Your task to perform on an android device: Go to calendar. Show me events next week Image 0: 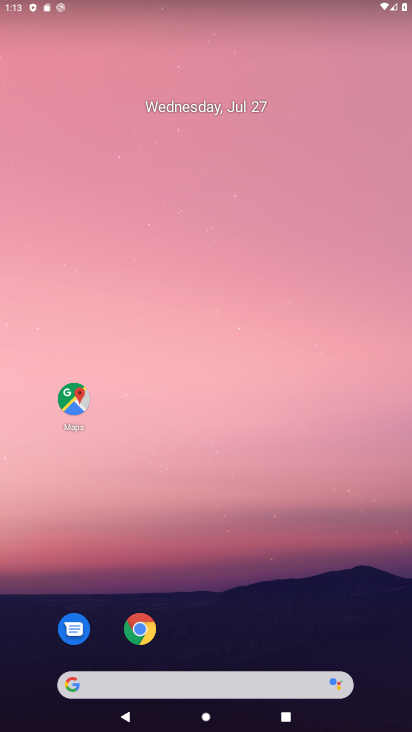
Step 0: press home button
Your task to perform on an android device: Go to calendar. Show me events next week Image 1: 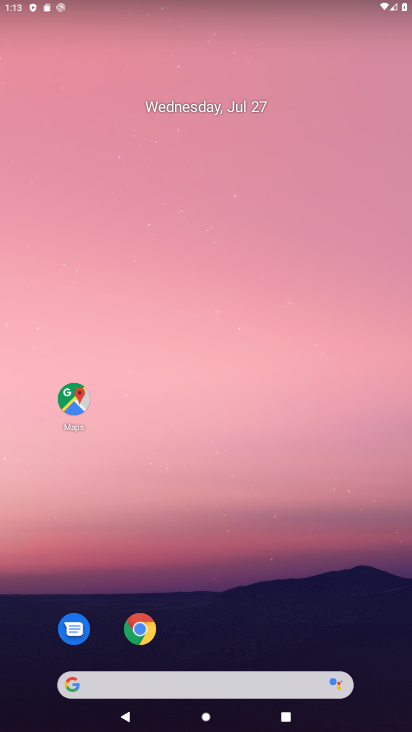
Step 1: drag from (255, 650) to (259, 10)
Your task to perform on an android device: Go to calendar. Show me events next week Image 2: 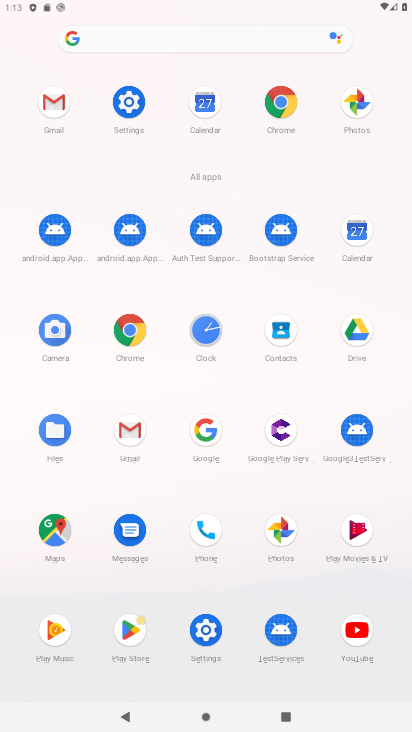
Step 2: click (356, 238)
Your task to perform on an android device: Go to calendar. Show me events next week Image 3: 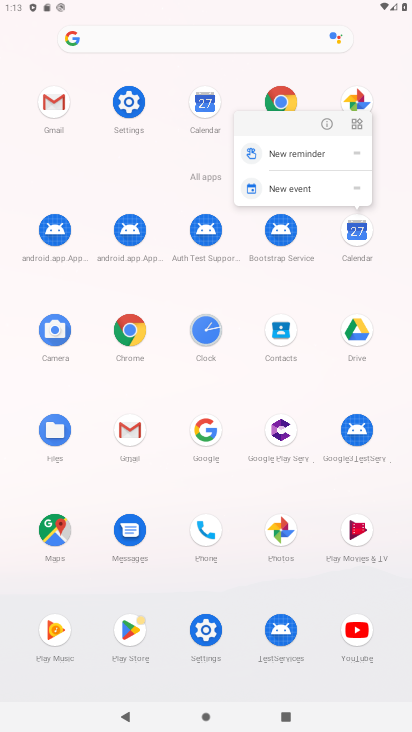
Step 3: click (356, 238)
Your task to perform on an android device: Go to calendar. Show me events next week Image 4: 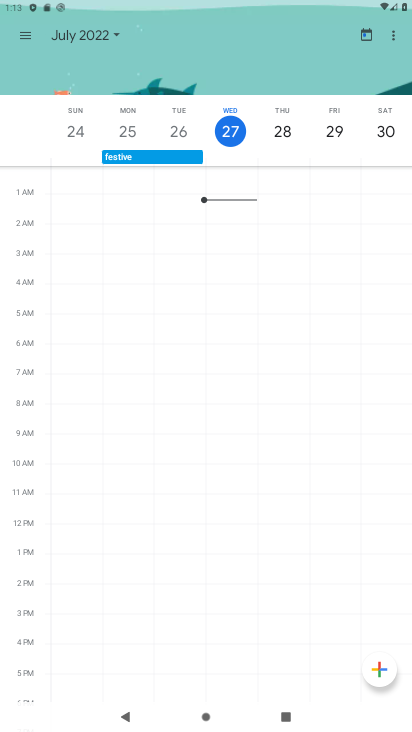
Step 4: click (36, 33)
Your task to perform on an android device: Go to calendar. Show me events next week Image 5: 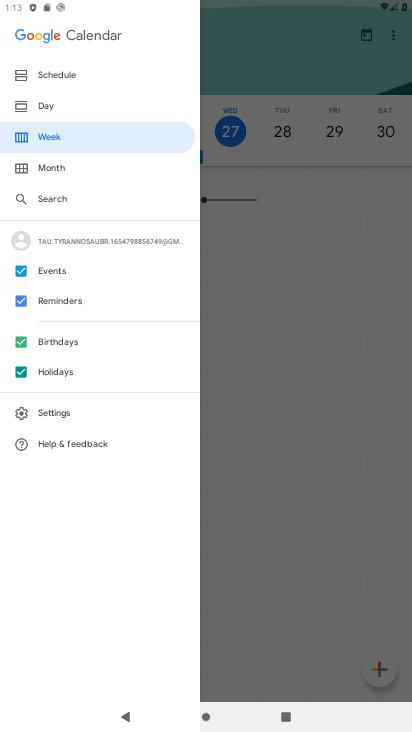
Step 5: click (58, 69)
Your task to perform on an android device: Go to calendar. Show me events next week Image 6: 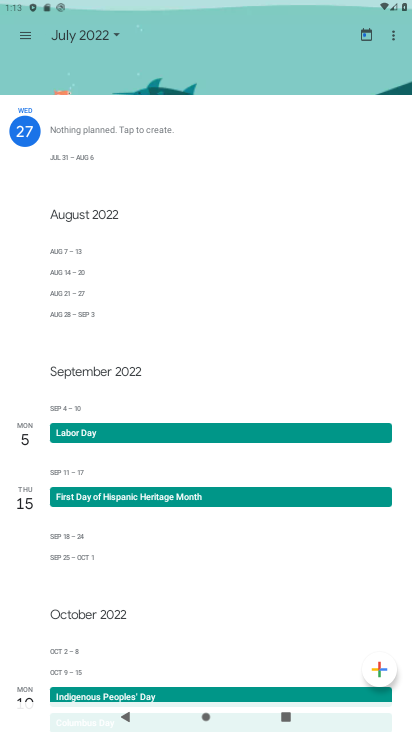
Step 6: task complete